Your task to perform on an android device: turn smart compose on in the gmail app Image 0: 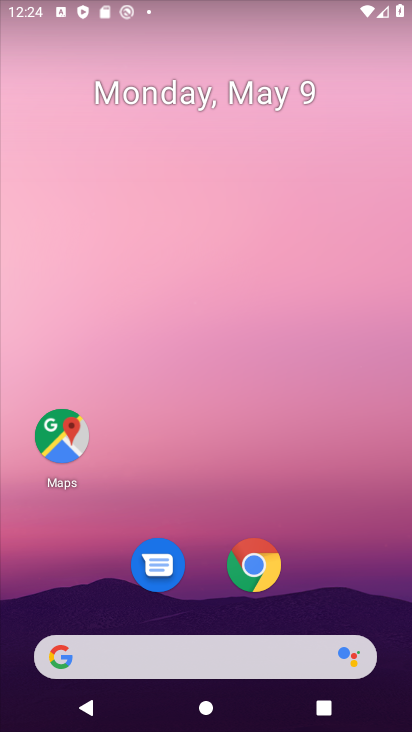
Step 0: drag from (166, 573) to (87, 107)
Your task to perform on an android device: turn smart compose on in the gmail app Image 1: 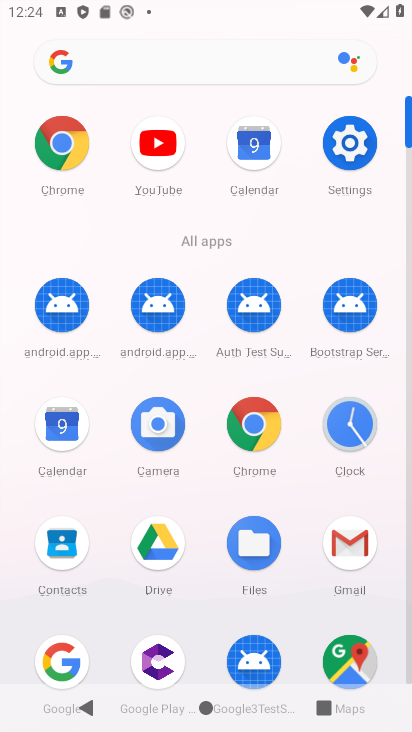
Step 1: drag from (195, 577) to (267, 226)
Your task to perform on an android device: turn smart compose on in the gmail app Image 2: 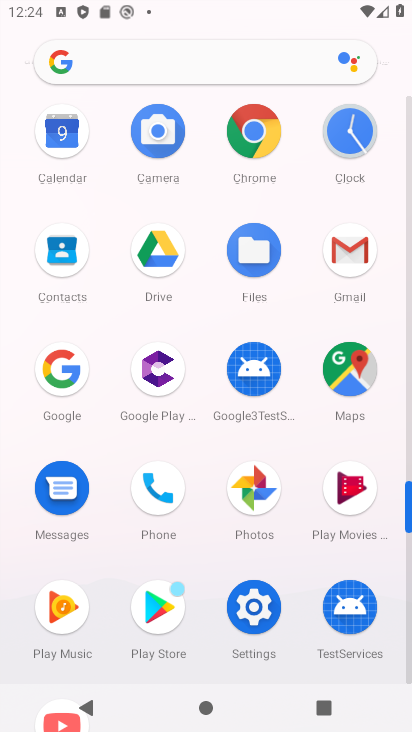
Step 2: click (335, 249)
Your task to perform on an android device: turn smart compose on in the gmail app Image 3: 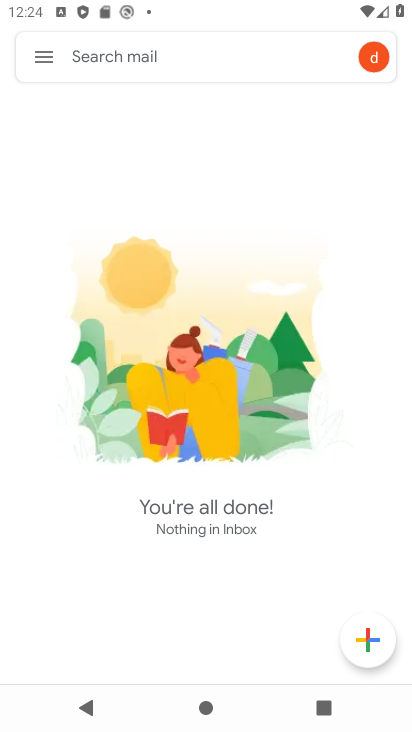
Step 3: click (45, 60)
Your task to perform on an android device: turn smart compose on in the gmail app Image 4: 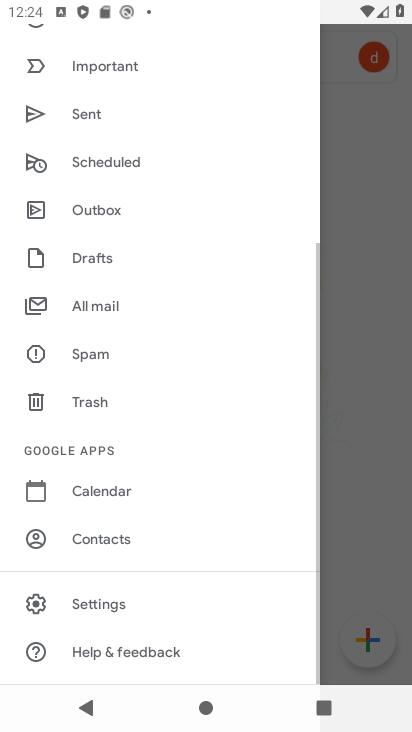
Step 4: drag from (146, 537) to (176, 103)
Your task to perform on an android device: turn smart compose on in the gmail app Image 5: 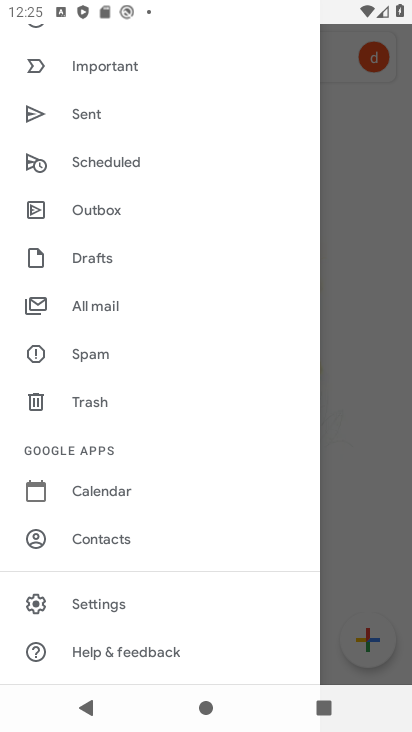
Step 5: click (83, 600)
Your task to perform on an android device: turn smart compose on in the gmail app Image 6: 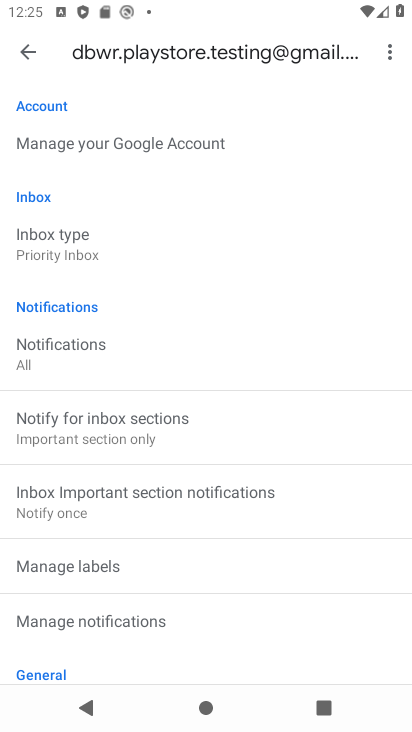
Step 6: task complete